Your task to perform on an android device: Search for macbook pro on costco, select the first entry, and add it to the cart. Image 0: 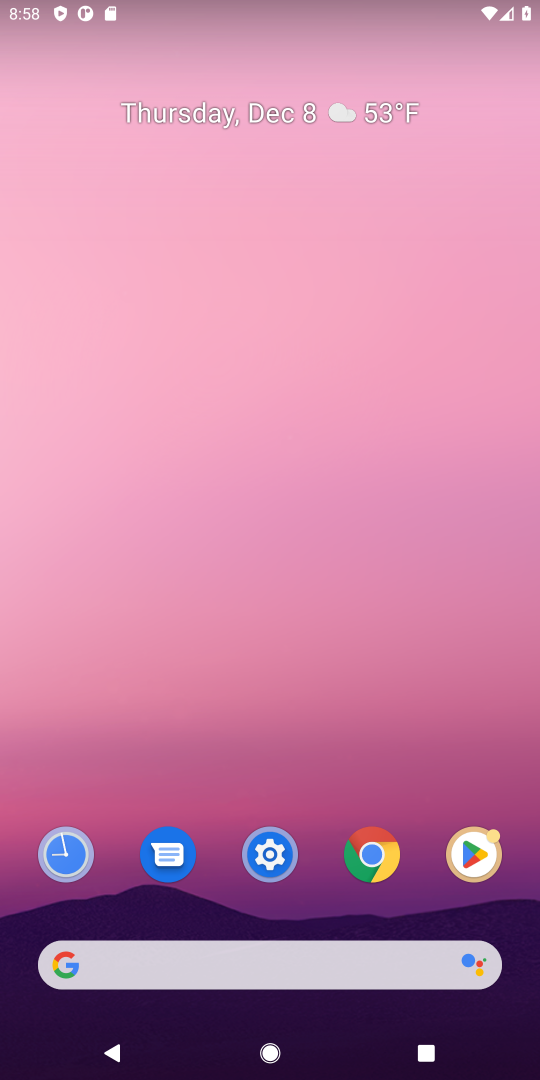
Step 0: press home button
Your task to perform on an android device: Search for macbook pro on costco, select the first entry, and add it to the cart. Image 1: 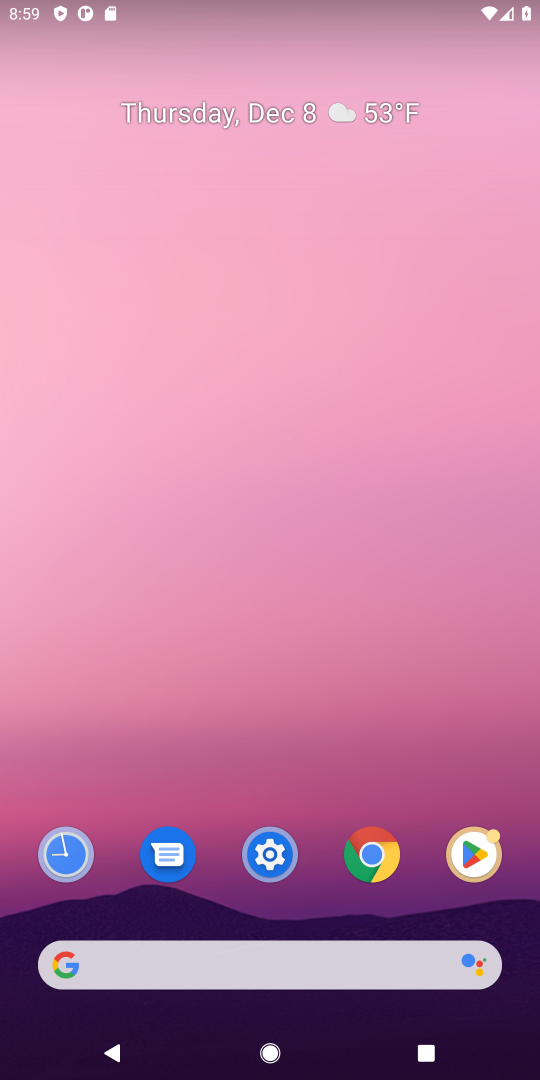
Step 1: click (94, 965)
Your task to perform on an android device: Search for macbook pro on costco, select the first entry, and add it to the cart. Image 2: 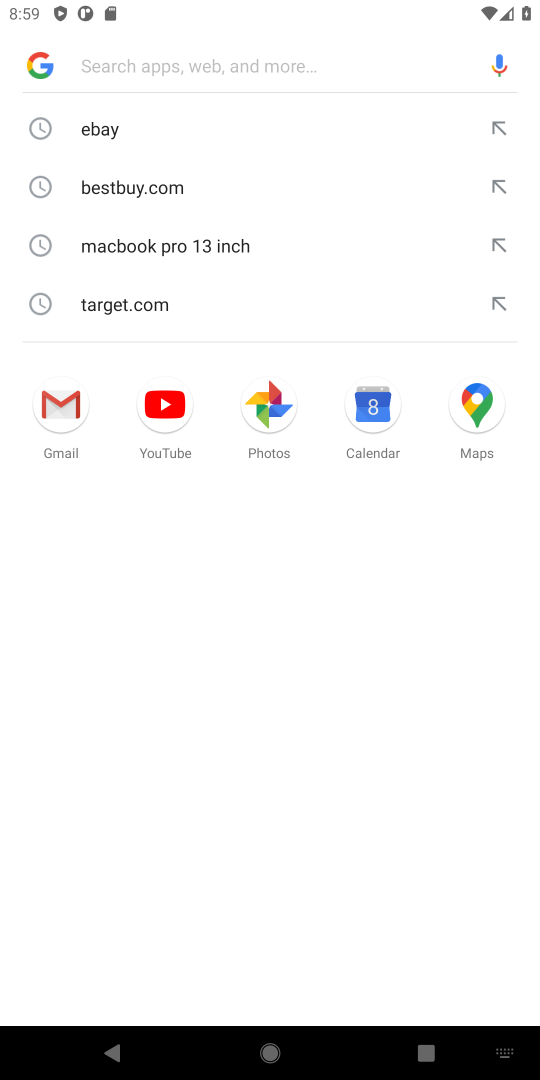
Step 2: type "costco"
Your task to perform on an android device: Search for macbook pro on costco, select the first entry, and add it to the cart. Image 3: 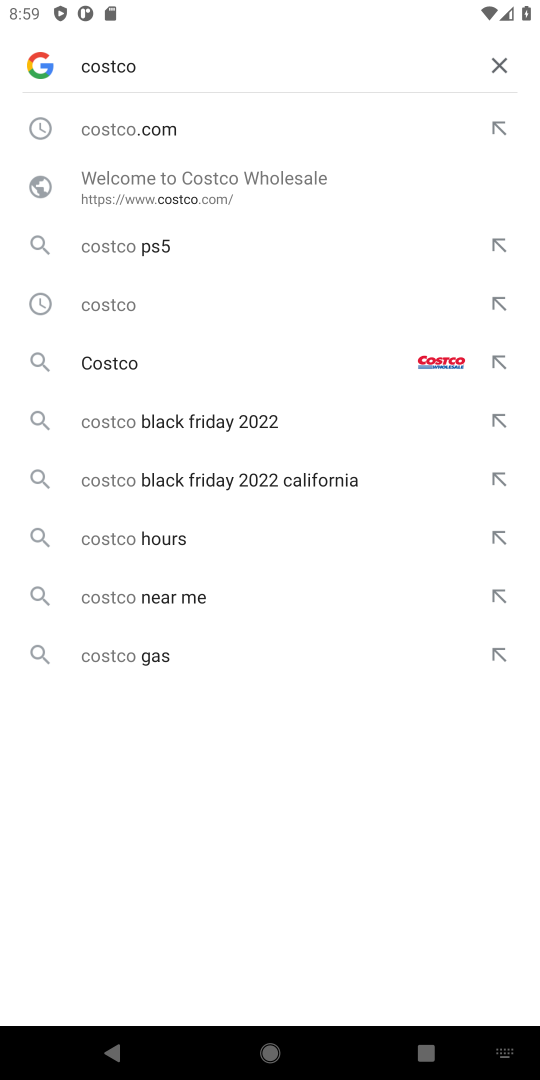
Step 3: press enter
Your task to perform on an android device: Search for macbook pro on costco, select the first entry, and add it to the cart. Image 4: 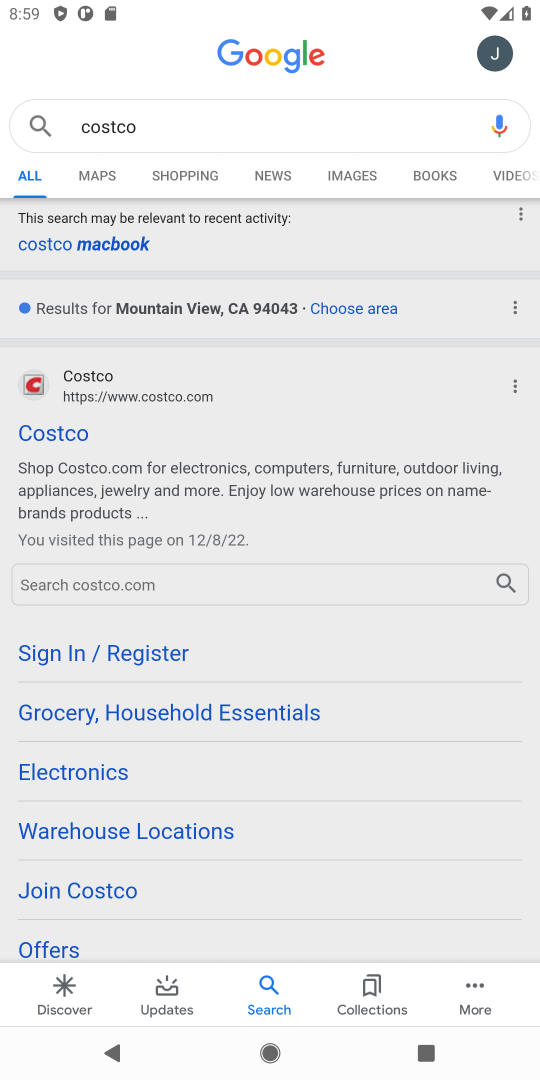
Step 4: click (45, 437)
Your task to perform on an android device: Search for macbook pro on costco, select the first entry, and add it to the cart. Image 5: 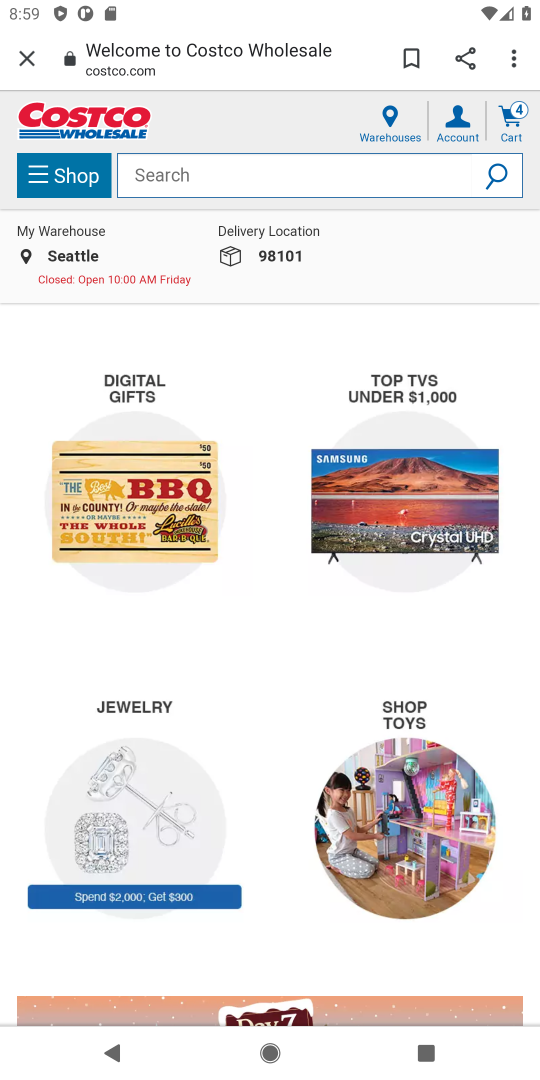
Step 5: click (166, 177)
Your task to perform on an android device: Search for macbook pro on costco, select the first entry, and add it to the cart. Image 6: 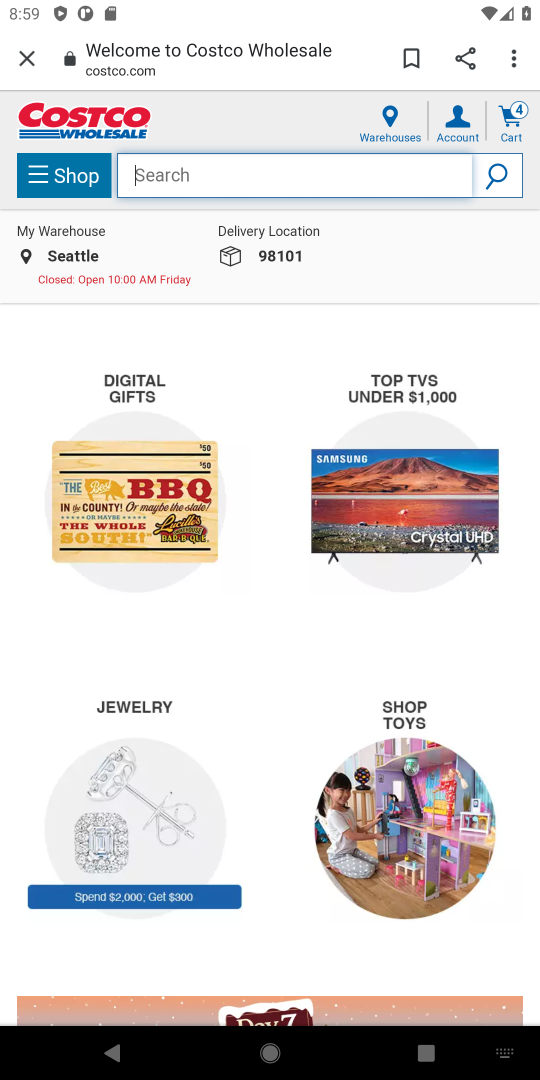
Step 6: press enter
Your task to perform on an android device: Search for macbook pro on costco, select the first entry, and add it to the cart. Image 7: 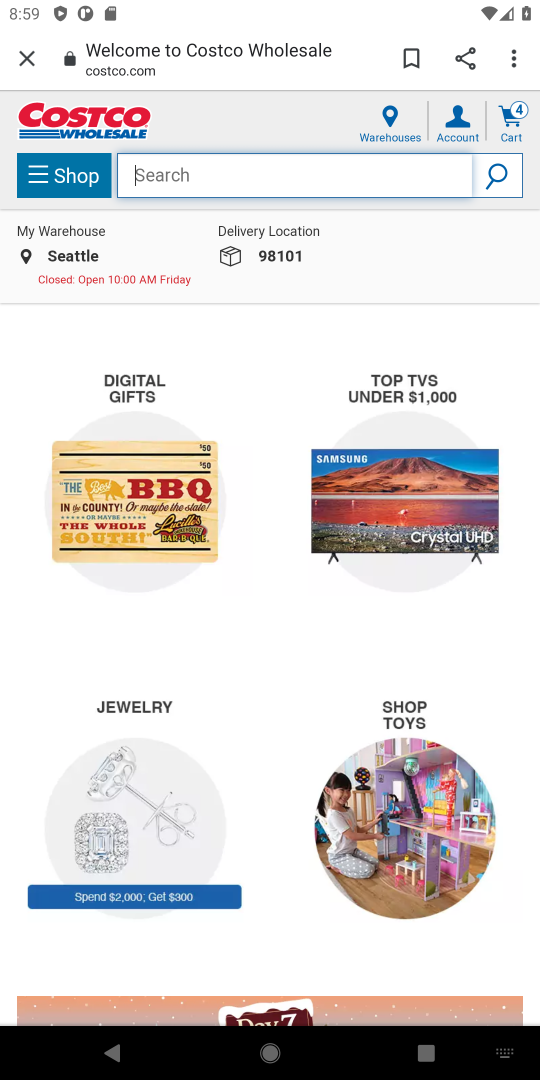
Step 7: type "macbook pro"
Your task to perform on an android device: Search for macbook pro on costco, select the first entry, and add it to the cart. Image 8: 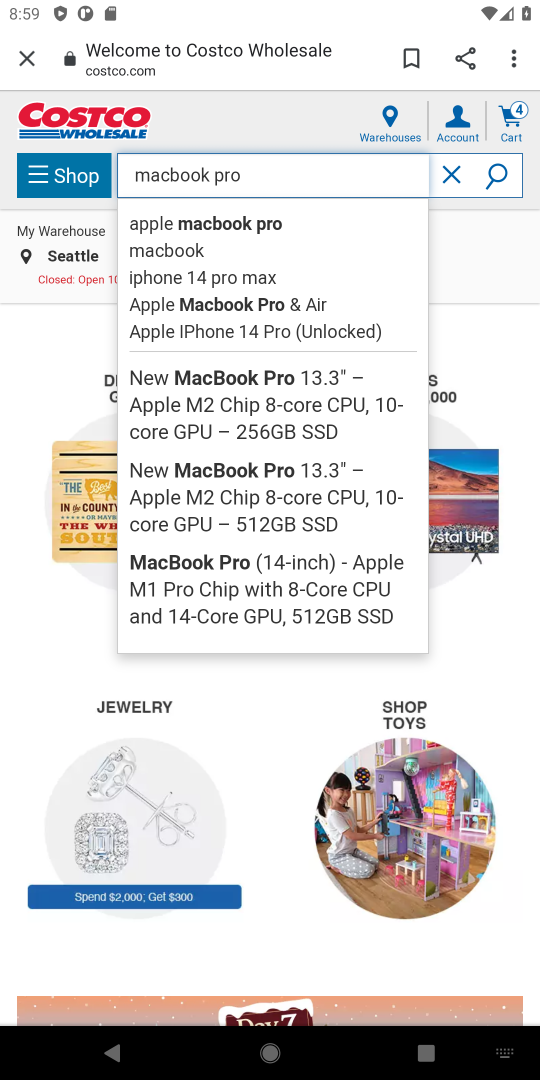
Step 8: press enter
Your task to perform on an android device: Search for macbook pro on costco, select the first entry, and add it to the cart. Image 9: 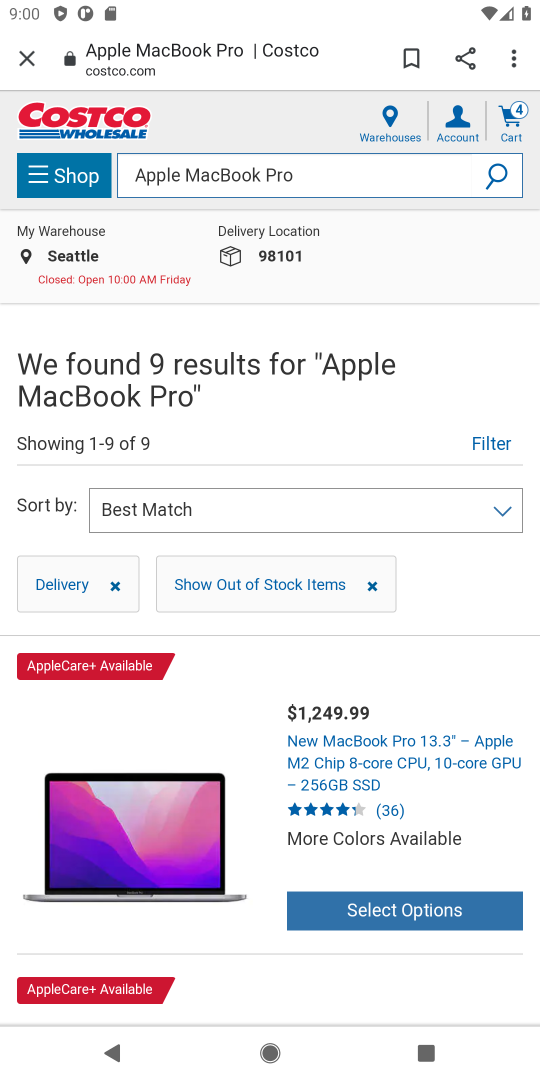
Step 9: drag from (399, 788) to (390, 399)
Your task to perform on an android device: Search for macbook pro on costco, select the first entry, and add it to the cart. Image 10: 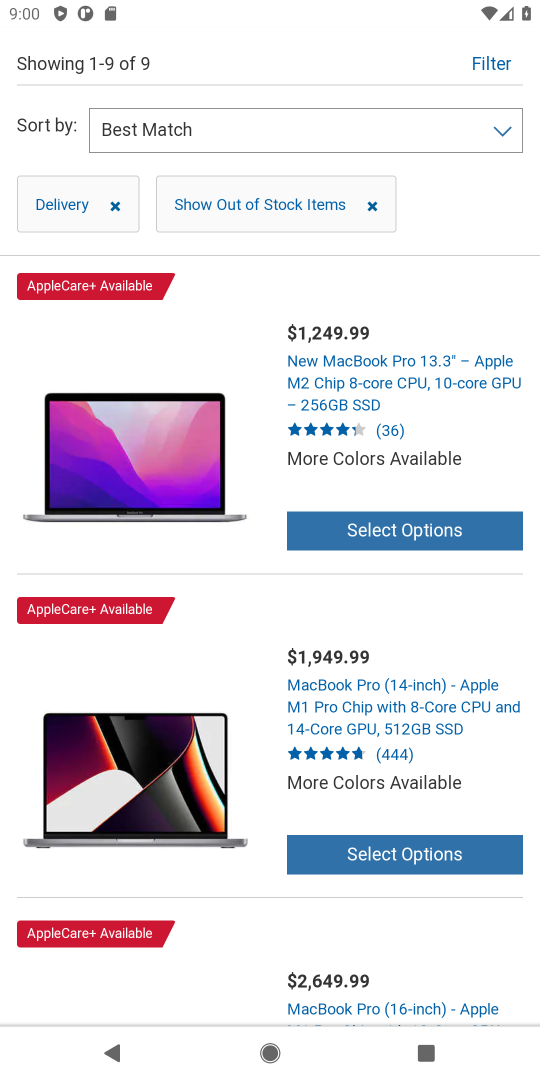
Step 10: click (348, 368)
Your task to perform on an android device: Search for macbook pro on costco, select the first entry, and add it to the cart. Image 11: 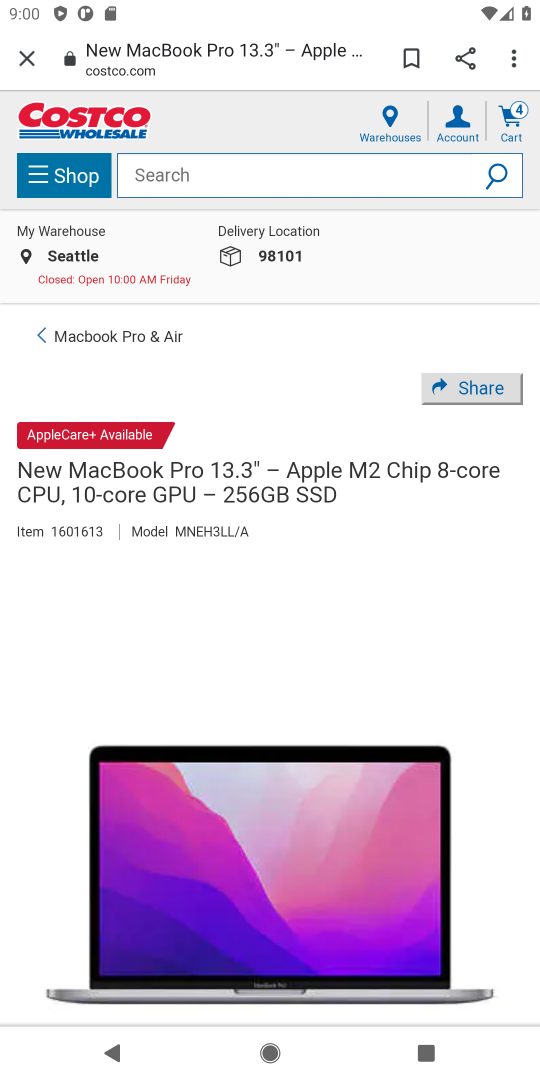
Step 11: drag from (297, 853) to (298, 313)
Your task to perform on an android device: Search for macbook pro on costco, select the first entry, and add it to the cart. Image 12: 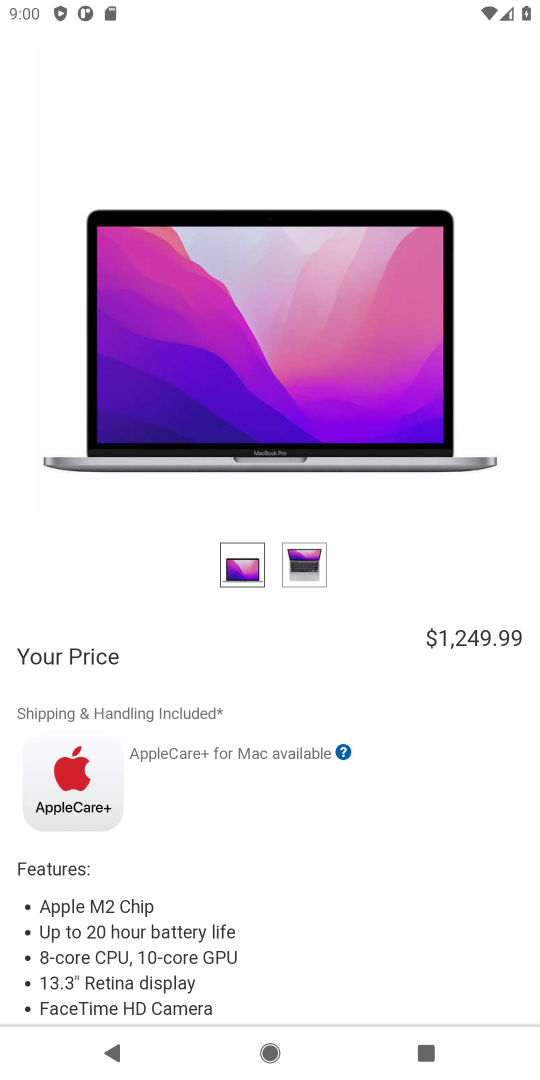
Step 12: drag from (264, 840) to (326, 299)
Your task to perform on an android device: Search for macbook pro on costco, select the first entry, and add it to the cart. Image 13: 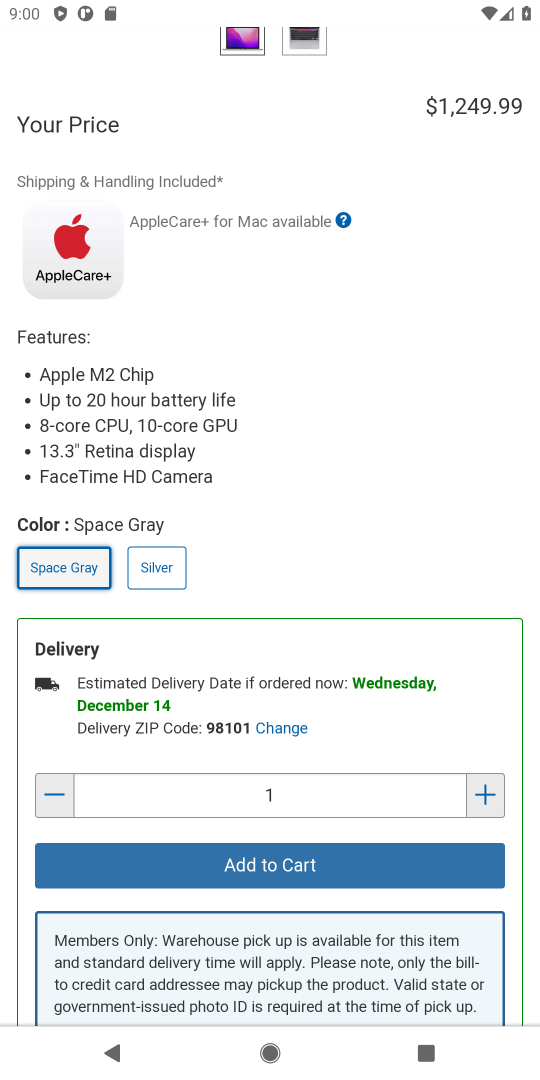
Step 13: drag from (233, 871) to (297, 407)
Your task to perform on an android device: Search for macbook pro on costco, select the first entry, and add it to the cart. Image 14: 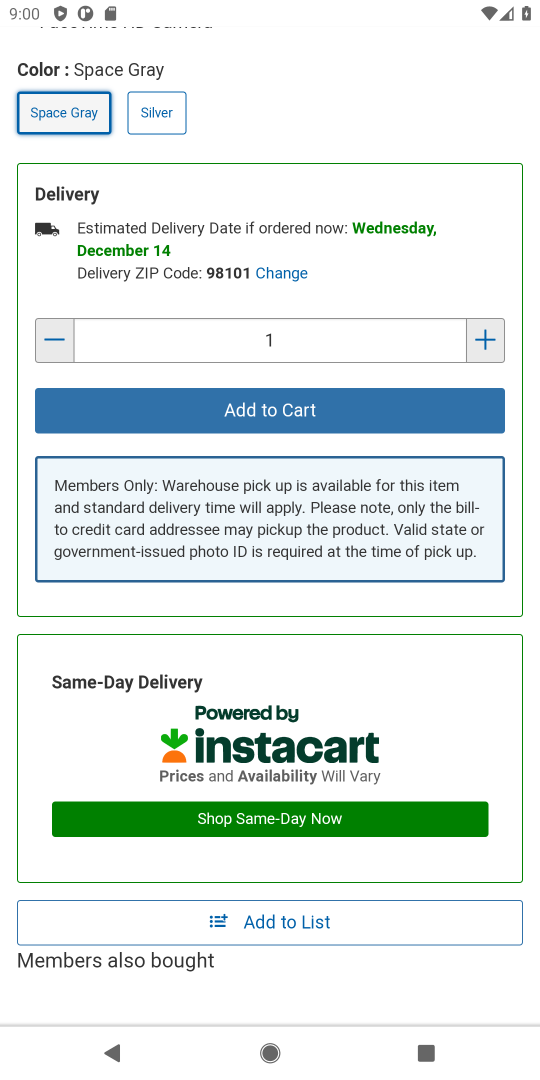
Step 14: click (252, 406)
Your task to perform on an android device: Search for macbook pro on costco, select the first entry, and add it to the cart. Image 15: 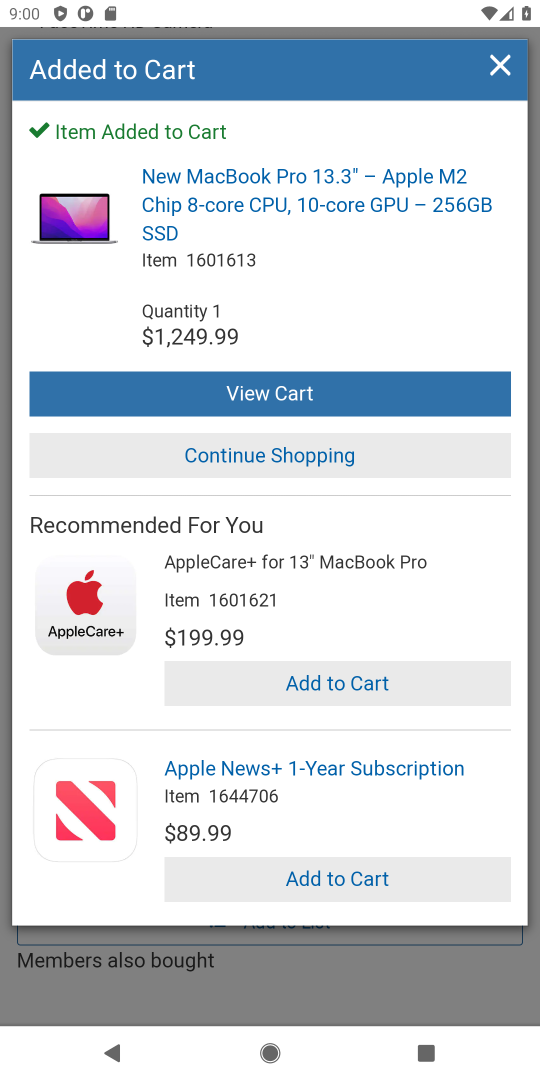
Step 15: task complete